Your task to perform on an android device: Open Google Maps Image 0: 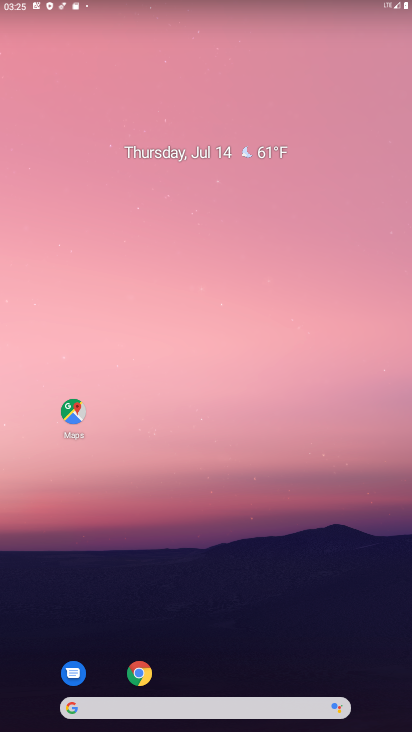
Step 0: drag from (260, 665) to (247, 333)
Your task to perform on an android device: Open Google Maps Image 1: 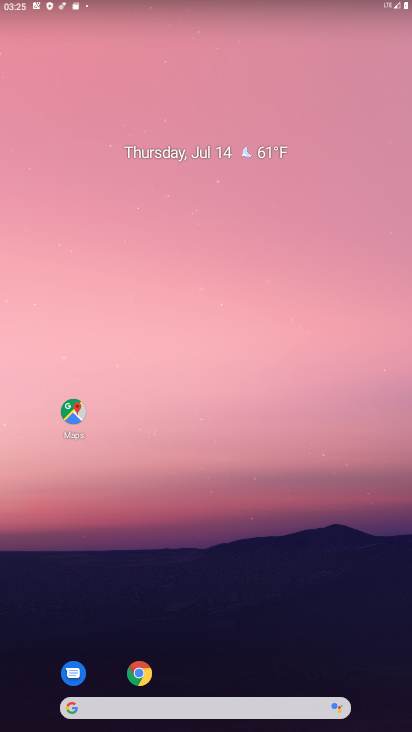
Step 1: click (61, 411)
Your task to perform on an android device: Open Google Maps Image 2: 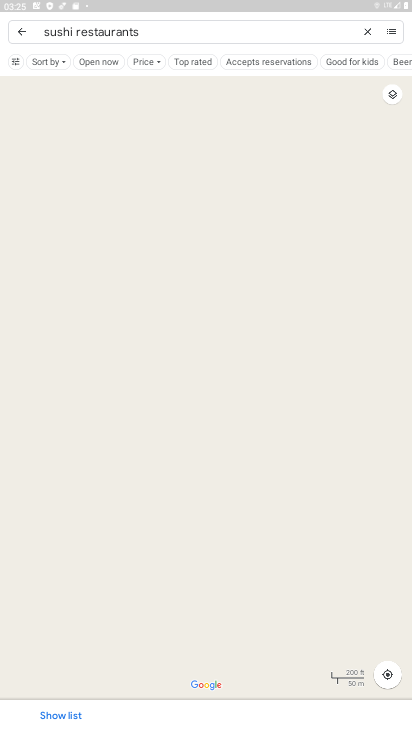
Step 2: task complete